Your task to perform on an android device: turn pop-ups off in chrome Image 0: 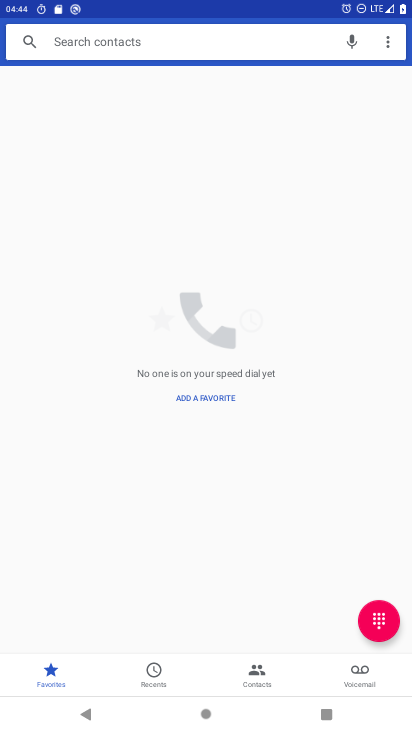
Step 0: press home button
Your task to perform on an android device: turn pop-ups off in chrome Image 1: 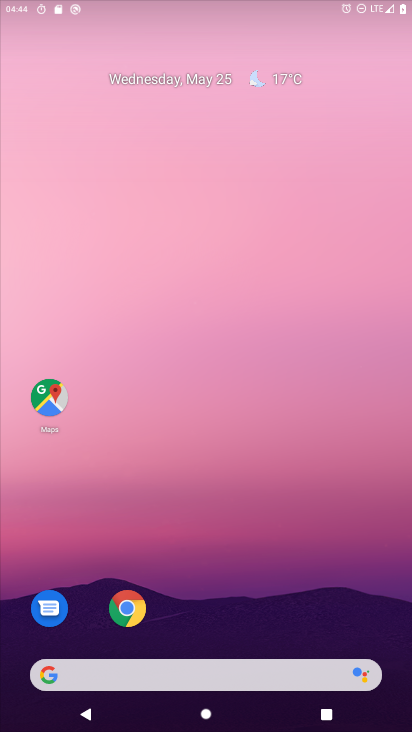
Step 1: drag from (257, 667) to (242, 225)
Your task to perform on an android device: turn pop-ups off in chrome Image 2: 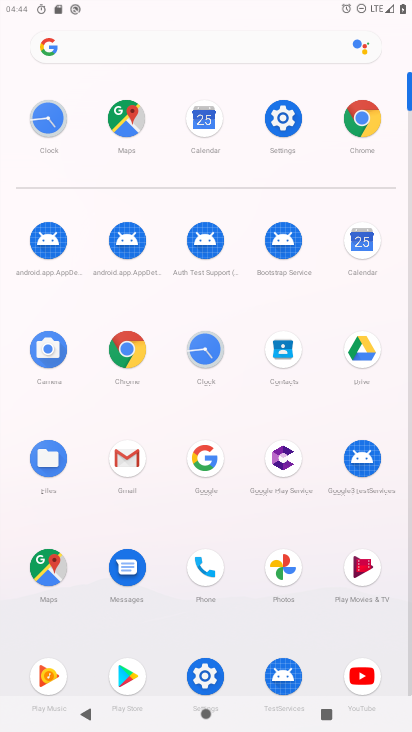
Step 2: click (116, 355)
Your task to perform on an android device: turn pop-ups off in chrome Image 3: 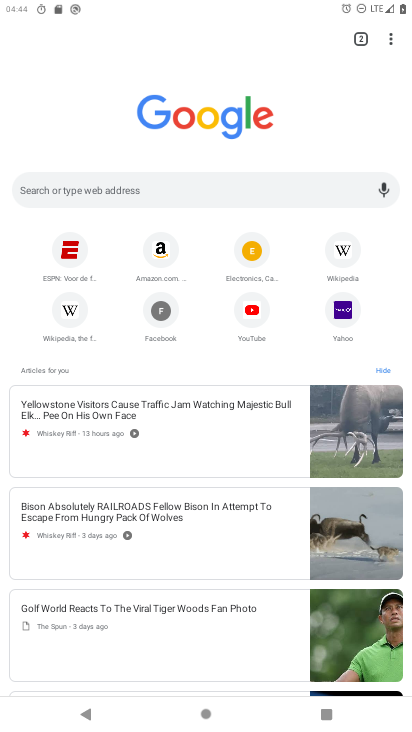
Step 3: click (395, 36)
Your task to perform on an android device: turn pop-ups off in chrome Image 4: 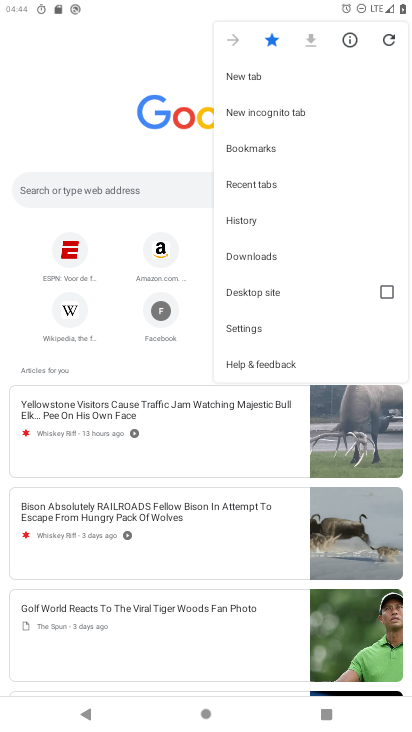
Step 4: click (265, 323)
Your task to perform on an android device: turn pop-ups off in chrome Image 5: 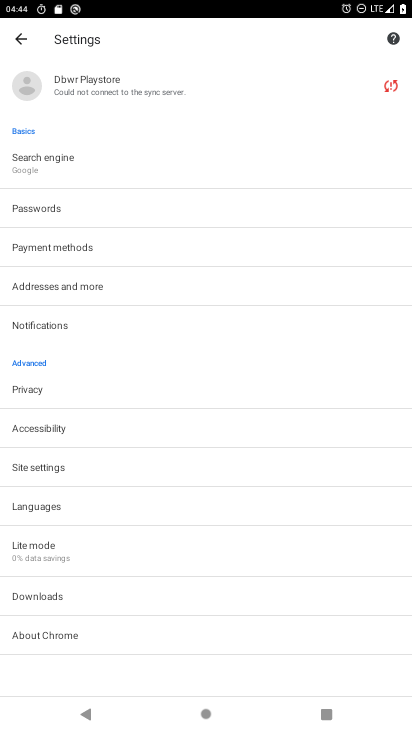
Step 5: click (50, 468)
Your task to perform on an android device: turn pop-ups off in chrome Image 6: 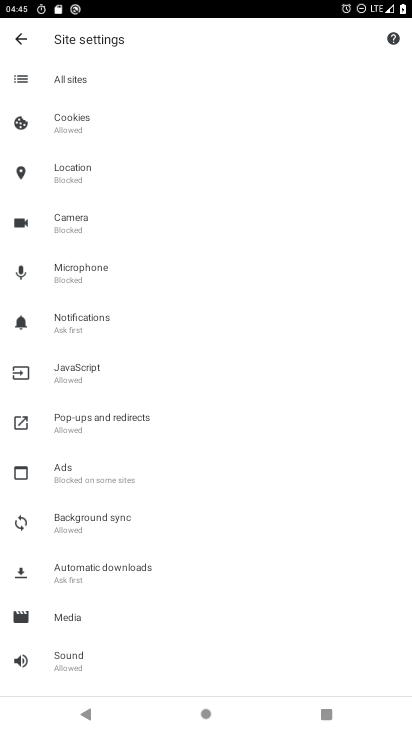
Step 6: click (84, 416)
Your task to perform on an android device: turn pop-ups off in chrome Image 7: 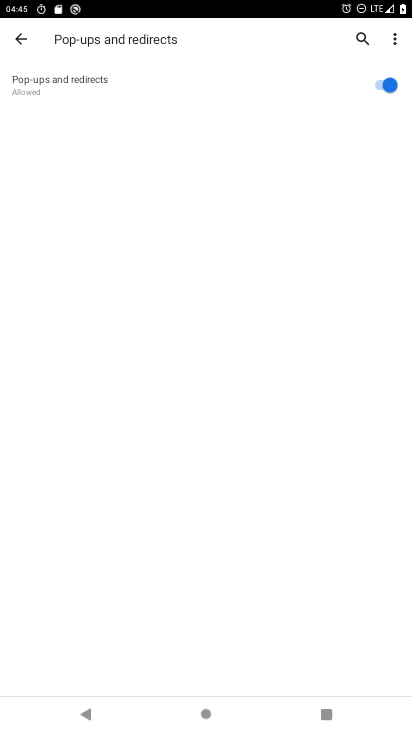
Step 7: click (376, 70)
Your task to perform on an android device: turn pop-ups off in chrome Image 8: 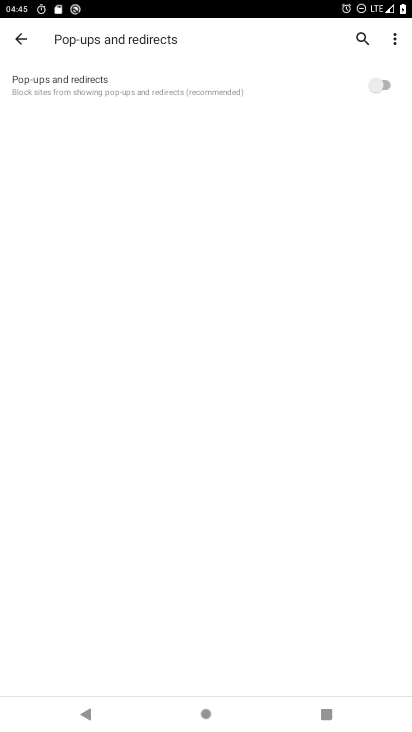
Step 8: task complete